Your task to perform on an android device: Open Reddit.com Image 0: 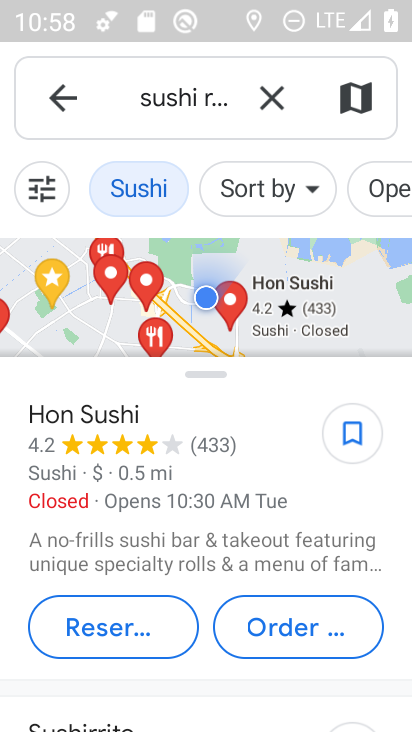
Step 0: press home button
Your task to perform on an android device: Open Reddit.com Image 1: 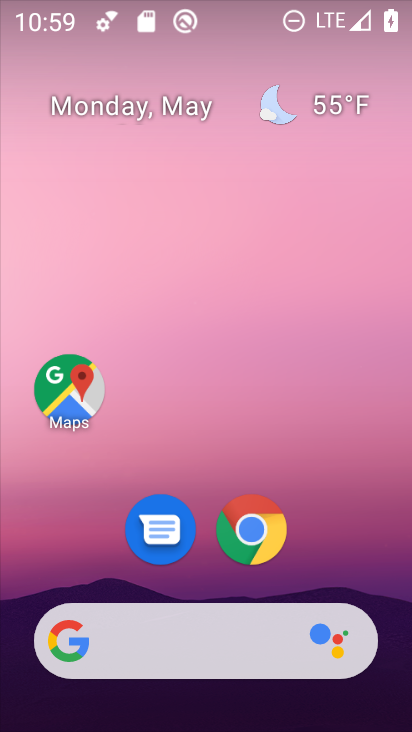
Step 1: click (260, 520)
Your task to perform on an android device: Open Reddit.com Image 2: 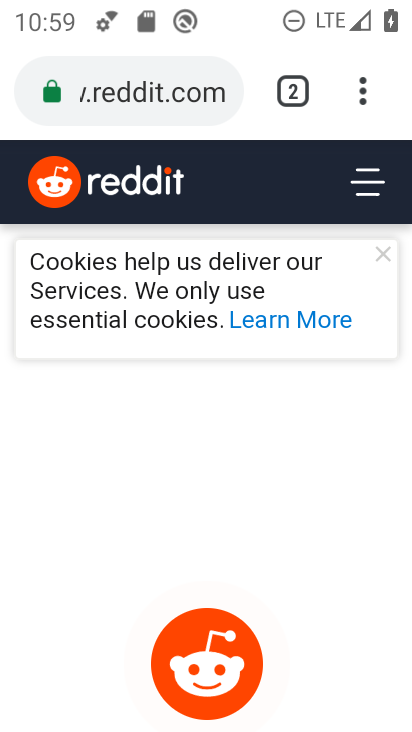
Step 2: task complete